Your task to perform on an android device: Go to Google maps Image 0: 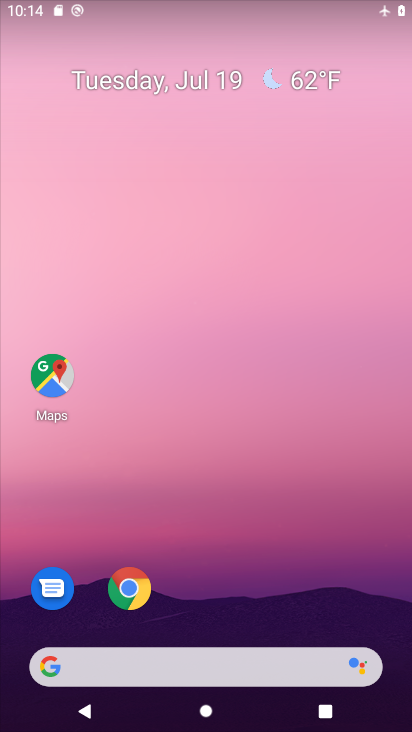
Step 0: click (52, 380)
Your task to perform on an android device: Go to Google maps Image 1: 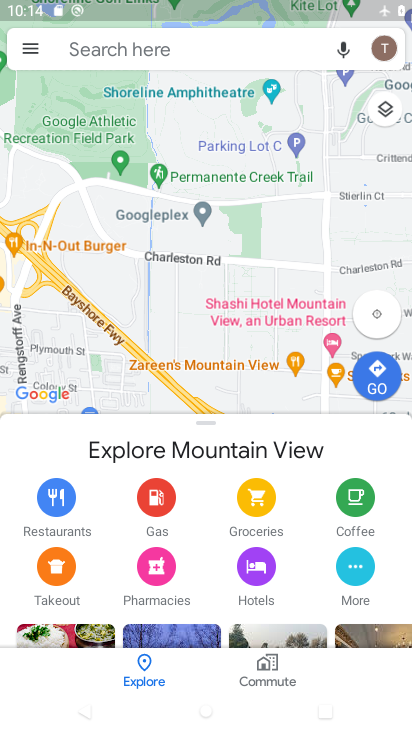
Step 1: task complete